Your task to perform on an android device: move an email to a new category in the gmail app Image 0: 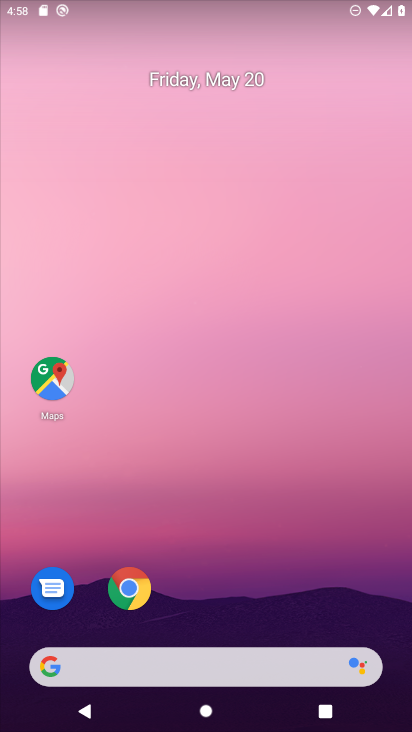
Step 0: drag from (221, 606) to (215, 196)
Your task to perform on an android device: move an email to a new category in the gmail app Image 1: 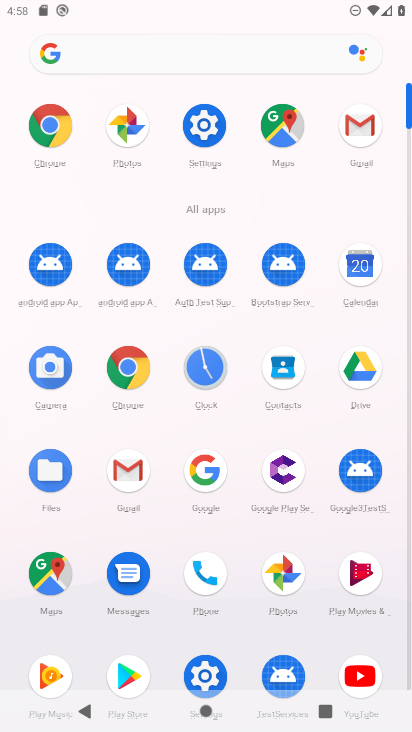
Step 1: click (350, 124)
Your task to perform on an android device: move an email to a new category in the gmail app Image 2: 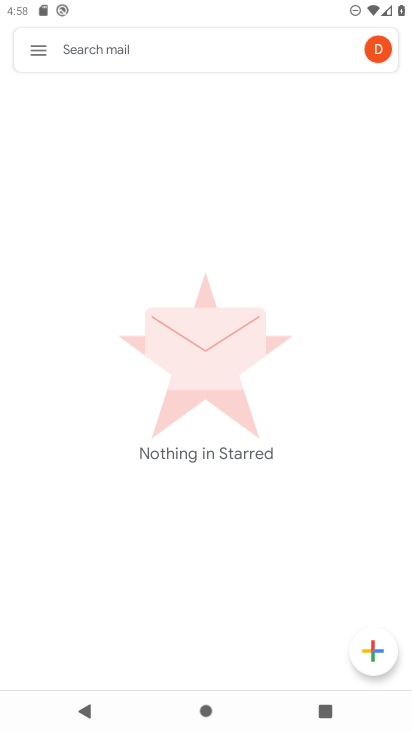
Step 2: click (43, 61)
Your task to perform on an android device: move an email to a new category in the gmail app Image 3: 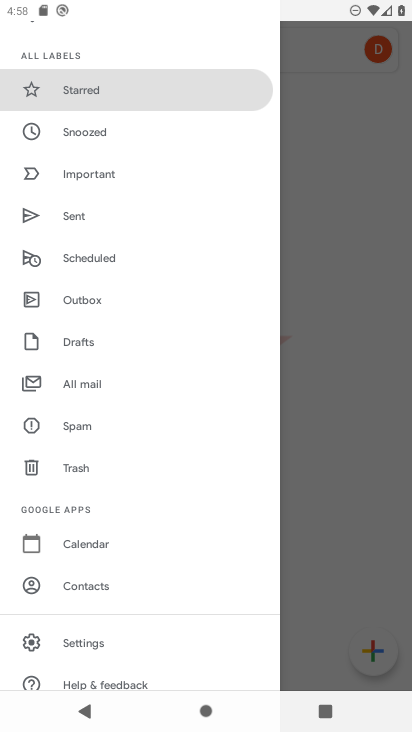
Step 3: click (85, 391)
Your task to perform on an android device: move an email to a new category in the gmail app Image 4: 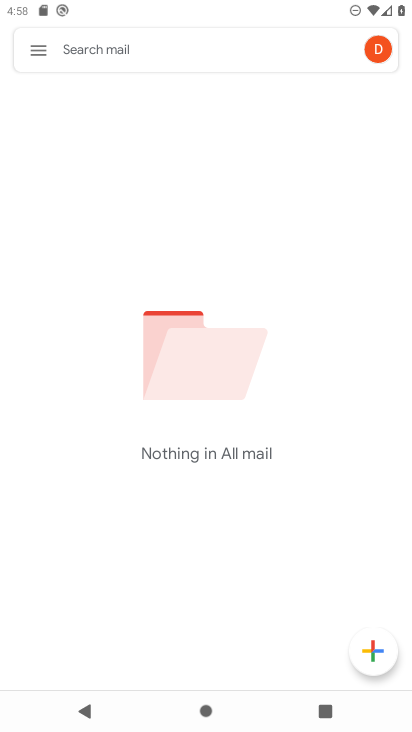
Step 4: task complete